Your task to perform on an android device: clear history in the chrome app Image 0: 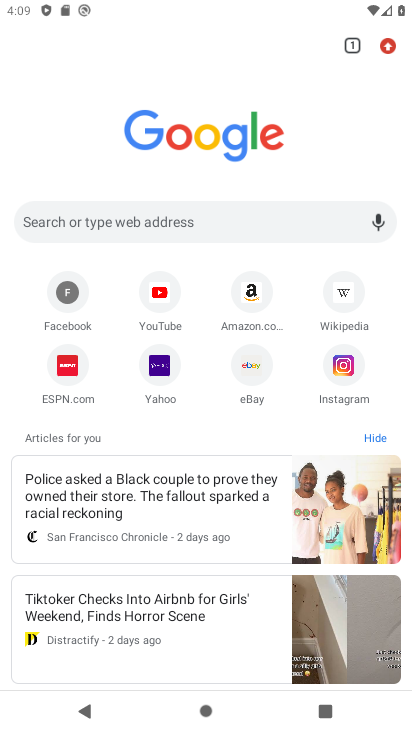
Step 0: drag from (389, 47) to (229, 321)
Your task to perform on an android device: clear history in the chrome app Image 1: 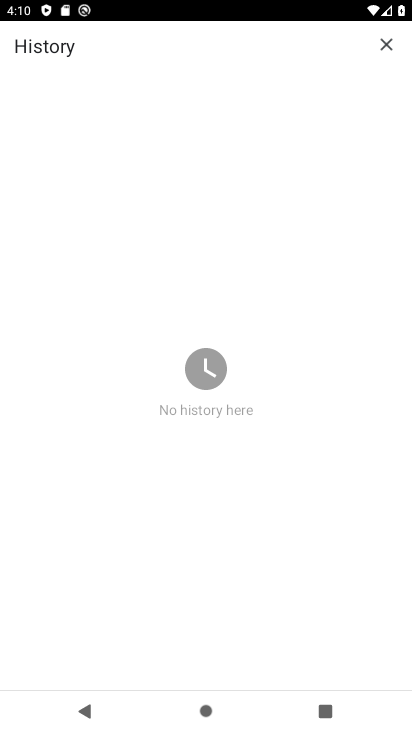
Step 1: task complete